Your task to perform on an android device: toggle priority inbox in the gmail app Image 0: 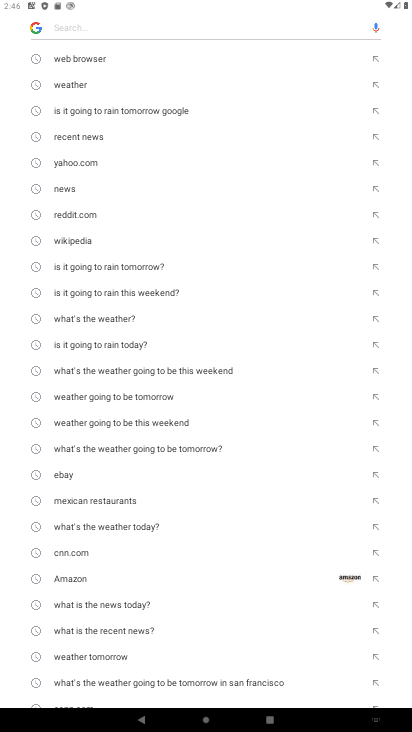
Step 0: press home button
Your task to perform on an android device: toggle priority inbox in the gmail app Image 1: 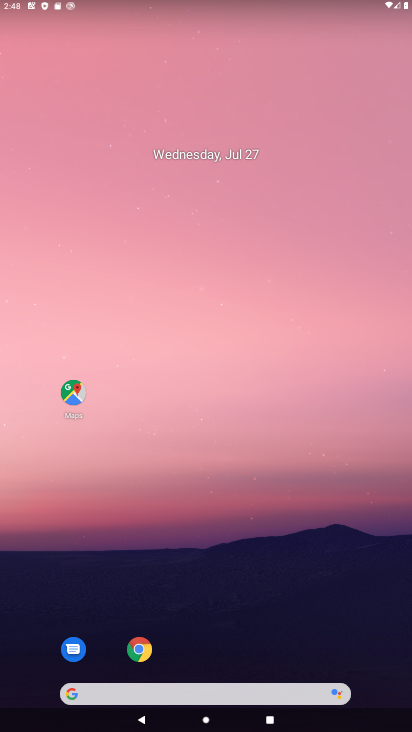
Step 1: drag from (325, 625) to (173, 30)
Your task to perform on an android device: toggle priority inbox in the gmail app Image 2: 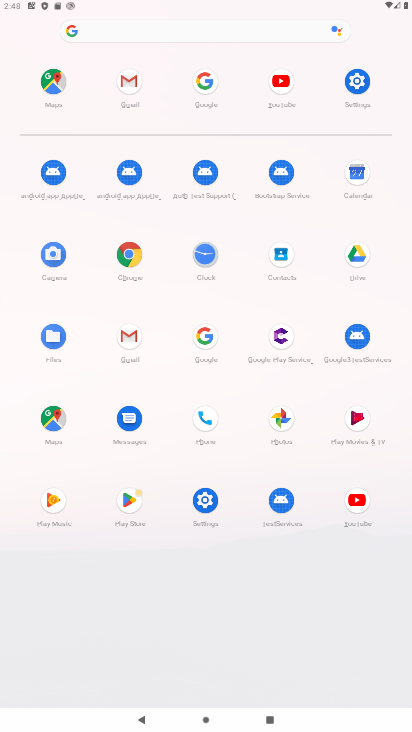
Step 2: click (123, 335)
Your task to perform on an android device: toggle priority inbox in the gmail app Image 3: 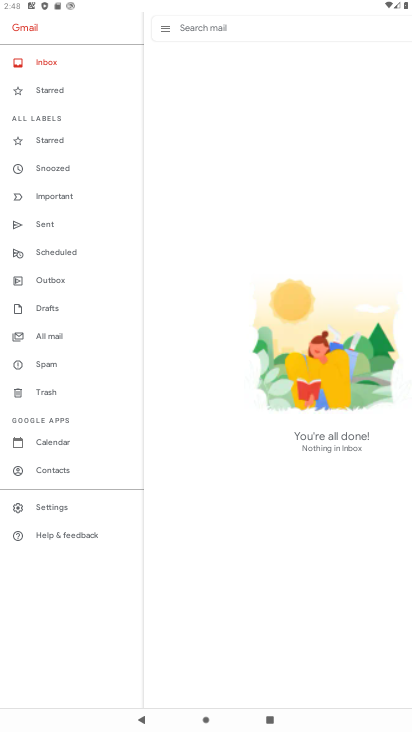
Step 3: click (52, 509)
Your task to perform on an android device: toggle priority inbox in the gmail app Image 4: 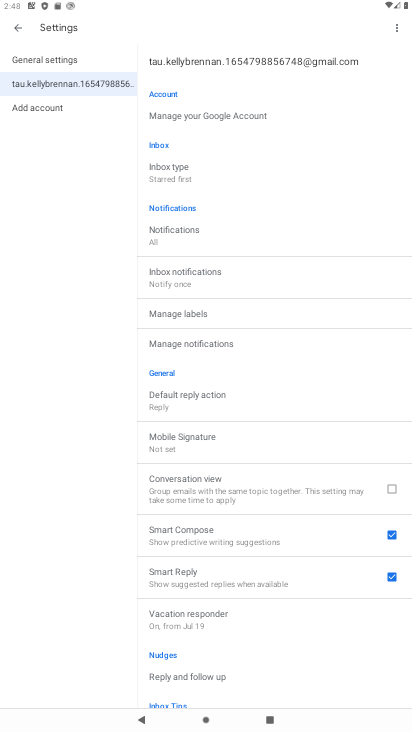
Step 4: click (165, 168)
Your task to perform on an android device: toggle priority inbox in the gmail app Image 5: 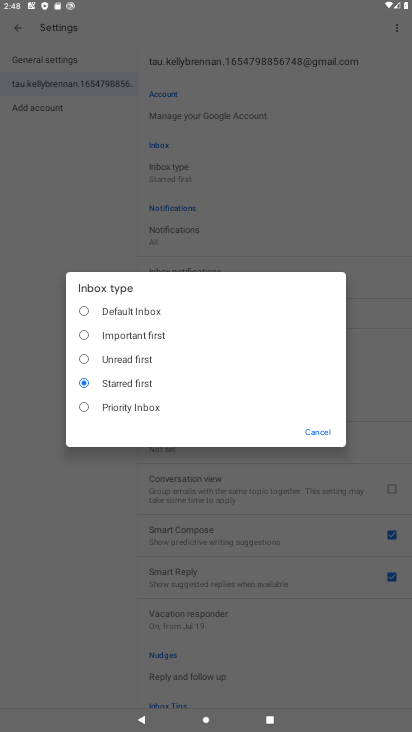
Step 5: click (90, 309)
Your task to perform on an android device: toggle priority inbox in the gmail app Image 6: 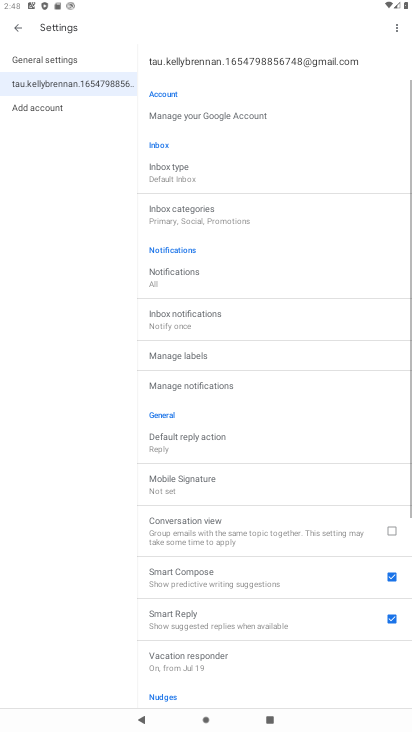
Step 6: task complete